Your task to perform on an android device: Go to Google maps Image 0: 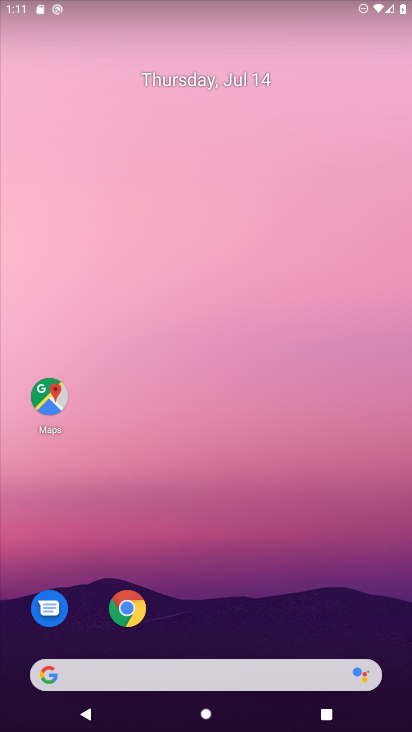
Step 0: drag from (229, 718) to (226, 284)
Your task to perform on an android device: Go to Google maps Image 1: 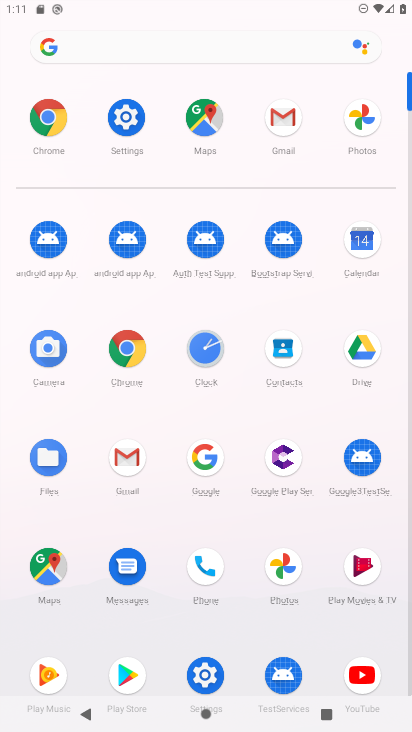
Step 1: click (204, 112)
Your task to perform on an android device: Go to Google maps Image 2: 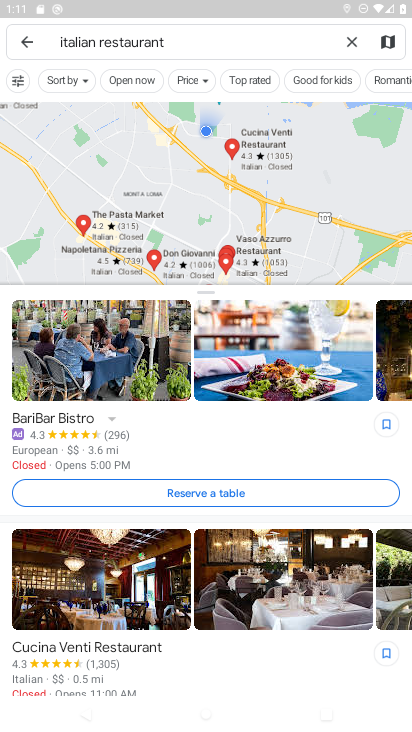
Step 2: task complete